Your task to perform on an android device: change notifications settings Image 0: 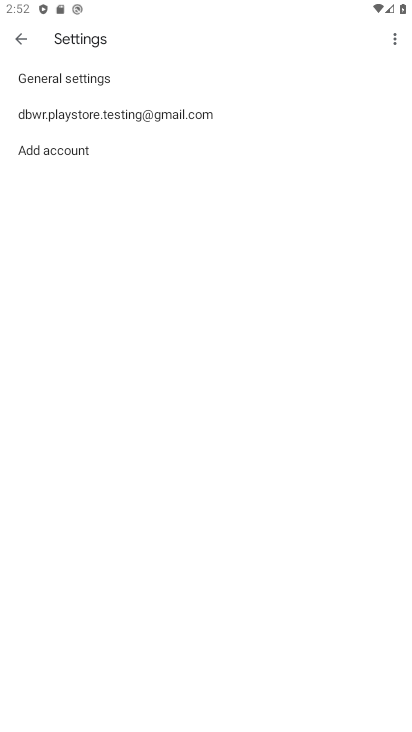
Step 0: press home button
Your task to perform on an android device: change notifications settings Image 1: 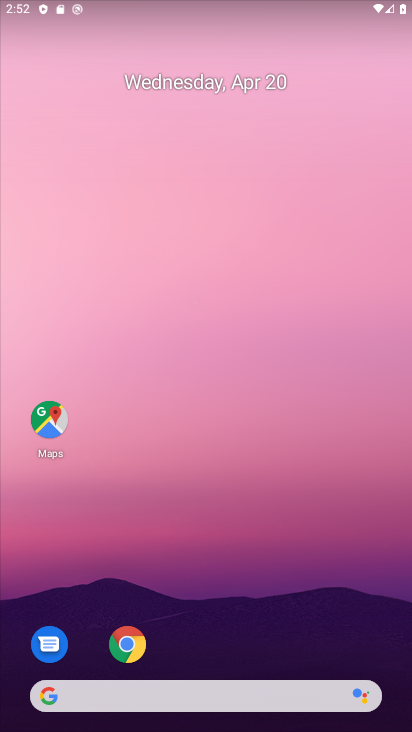
Step 1: drag from (231, 587) to (293, 10)
Your task to perform on an android device: change notifications settings Image 2: 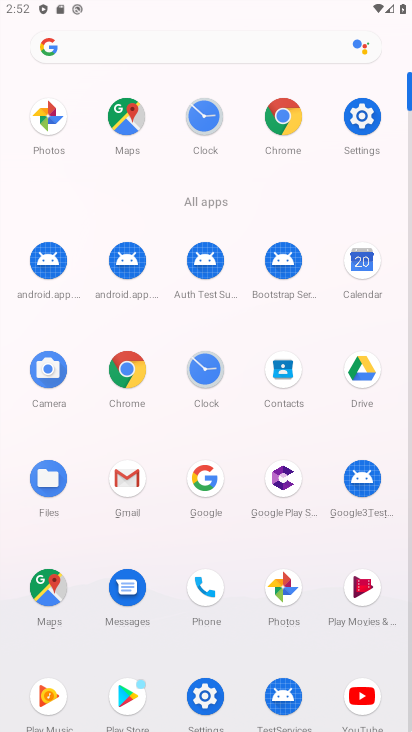
Step 2: click (367, 116)
Your task to perform on an android device: change notifications settings Image 3: 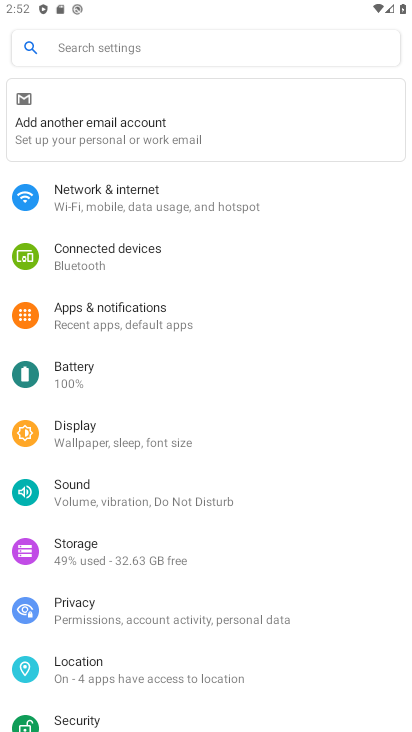
Step 3: click (173, 323)
Your task to perform on an android device: change notifications settings Image 4: 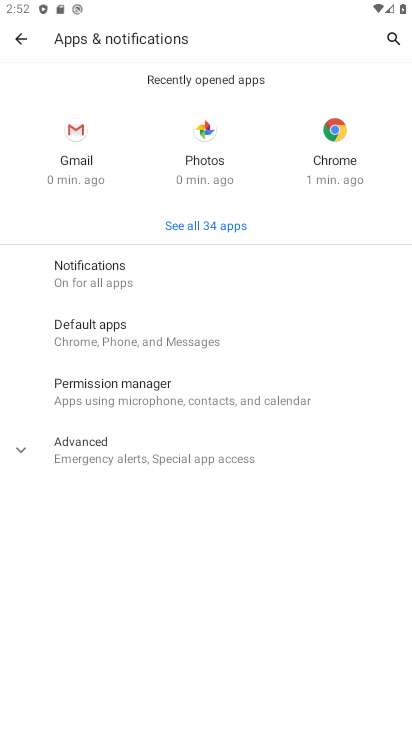
Step 4: click (161, 269)
Your task to perform on an android device: change notifications settings Image 5: 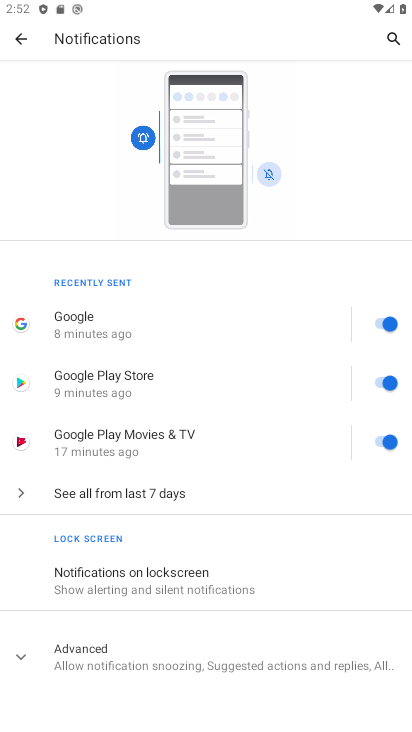
Step 5: click (158, 650)
Your task to perform on an android device: change notifications settings Image 6: 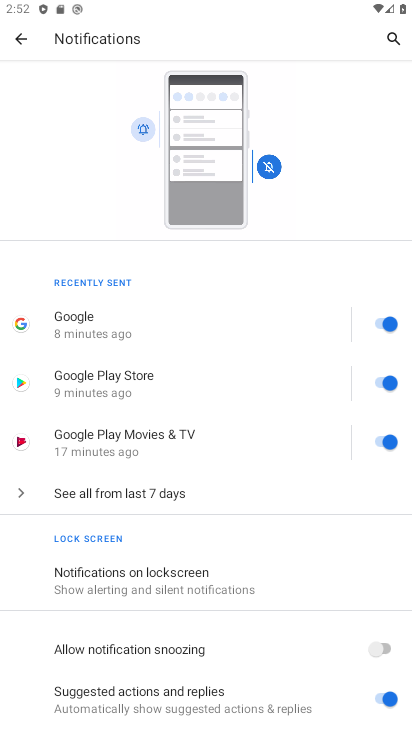
Step 6: click (386, 325)
Your task to perform on an android device: change notifications settings Image 7: 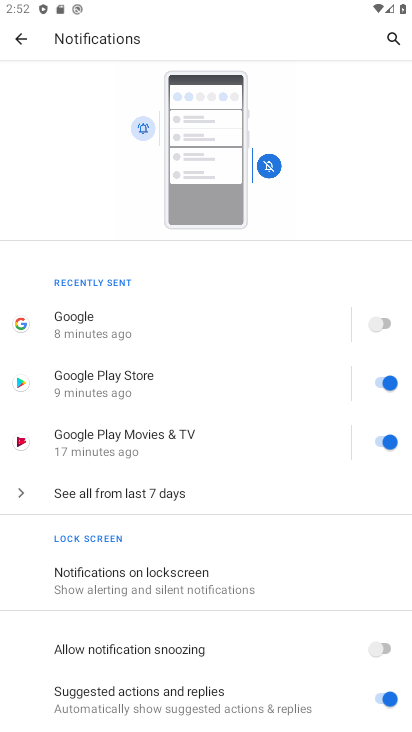
Step 7: click (396, 375)
Your task to perform on an android device: change notifications settings Image 8: 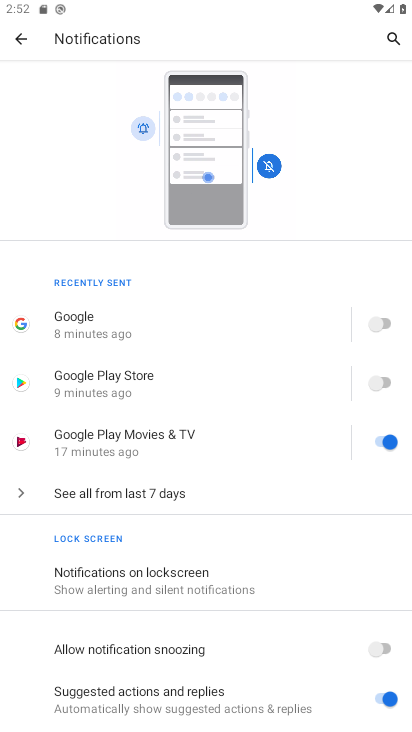
Step 8: task complete